Your task to perform on an android device: allow notifications from all sites in the chrome app Image 0: 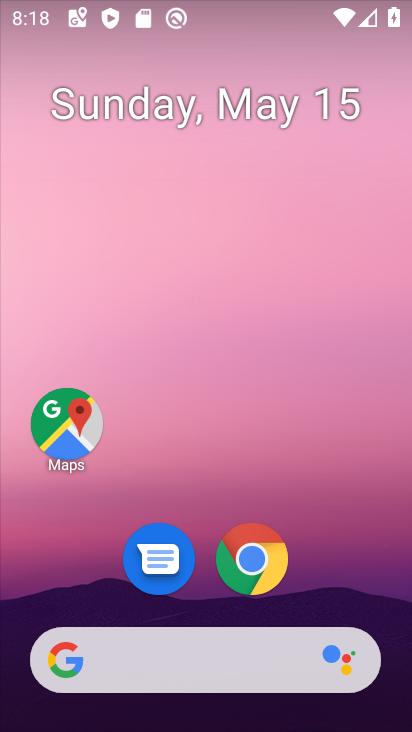
Step 0: click (323, 480)
Your task to perform on an android device: allow notifications from all sites in the chrome app Image 1: 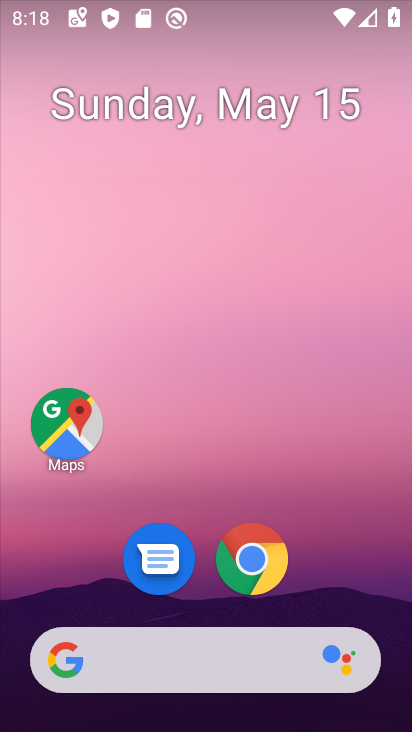
Step 1: click (263, 556)
Your task to perform on an android device: allow notifications from all sites in the chrome app Image 2: 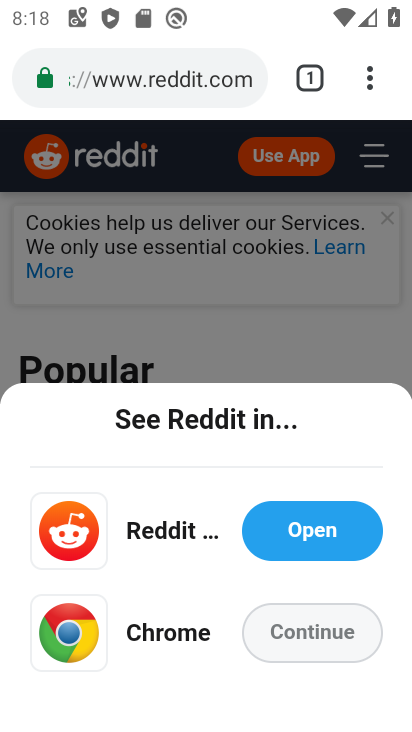
Step 2: click (367, 73)
Your task to perform on an android device: allow notifications from all sites in the chrome app Image 3: 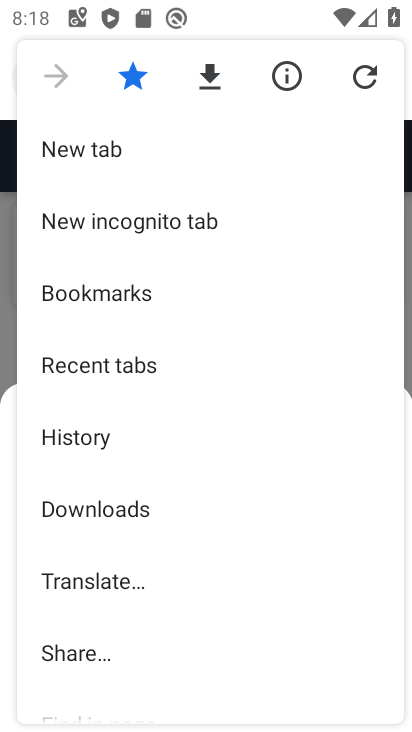
Step 3: drag from (171, 641) to (232, 299)
Your task to perform on an android device: allow notifications from all sites in the chrome app Image 4: 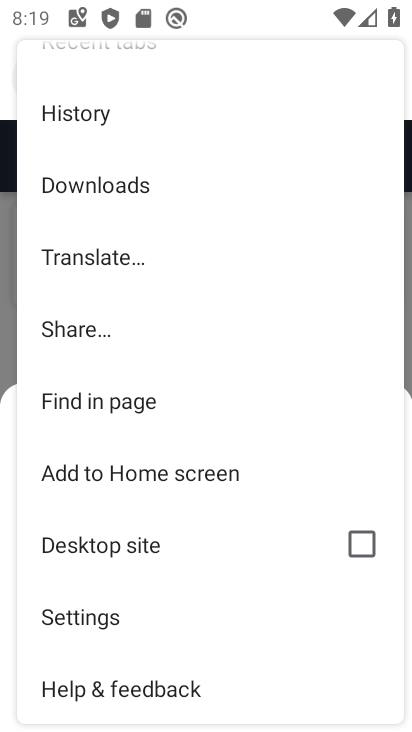
Step 4: click (161, 619)
Your task to perform on an android device: allow notifications from all sites in the chrome app Image 5: 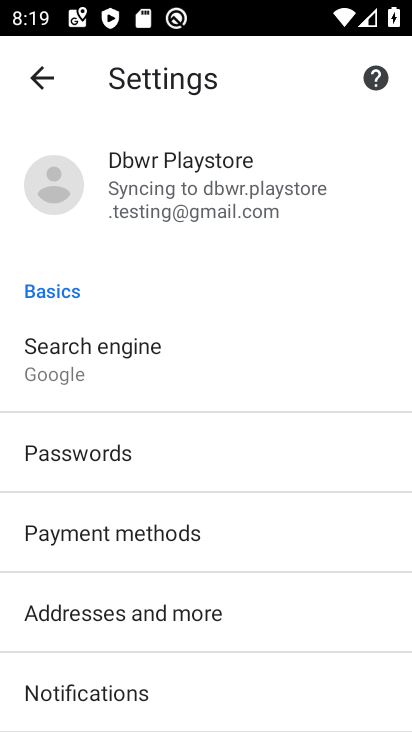
Step 5: drag from (161, 619) to (241, 412)
Your task to perform on an android device: allow notifications from all sites in the chrome app Image 6: 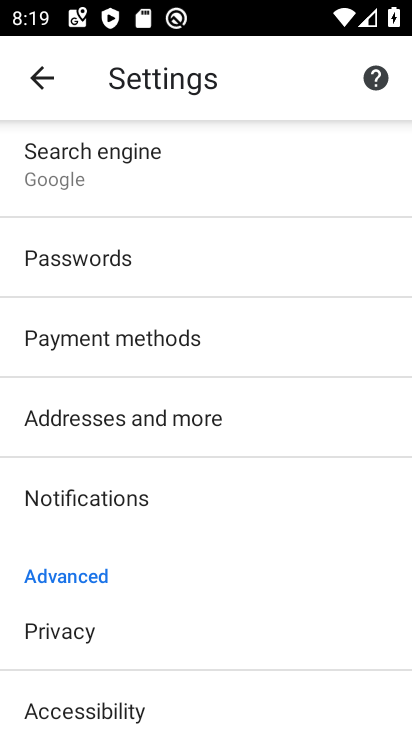
Step 6: click (181, 504)
Your task to perform on an android device: allow notifications from all sites in the chrome app Image 7: 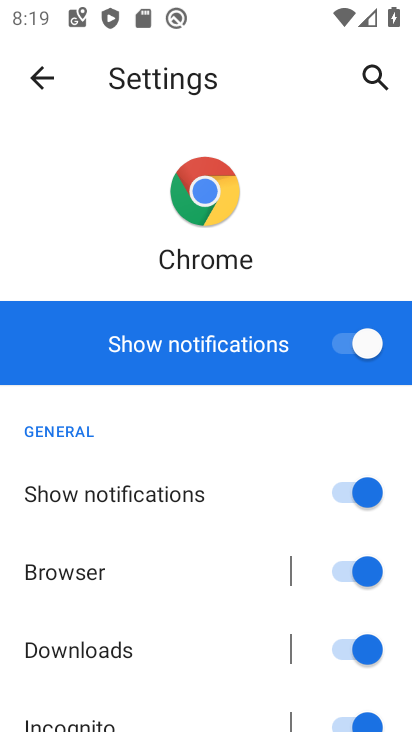
Step 7: task complete